Your task to perform on an android device: turn off data saver in the chrome app Image 0: 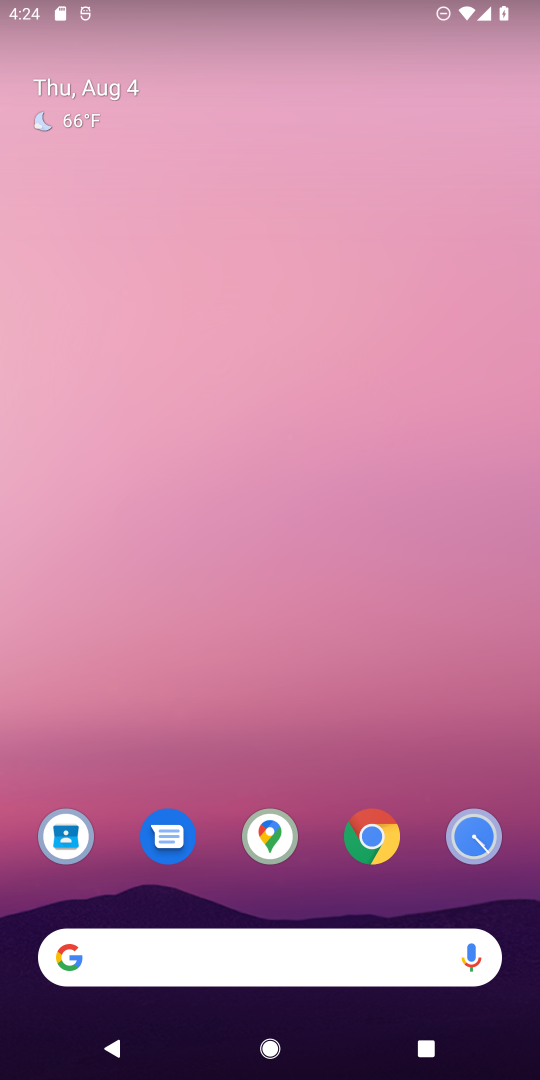
Step 0: click (376, 822)
Your task to perform on an android device: turn off data saver in the chrome app Image 1: 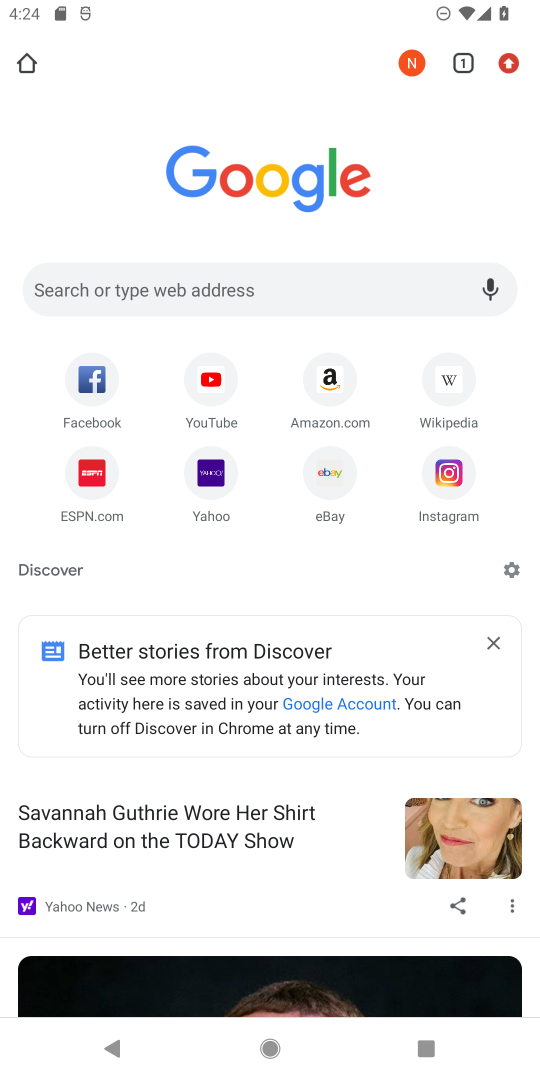
Step 1: click (499, 66)
Your task to perform on an android device: turn off data saver in the chrome app Image 2: 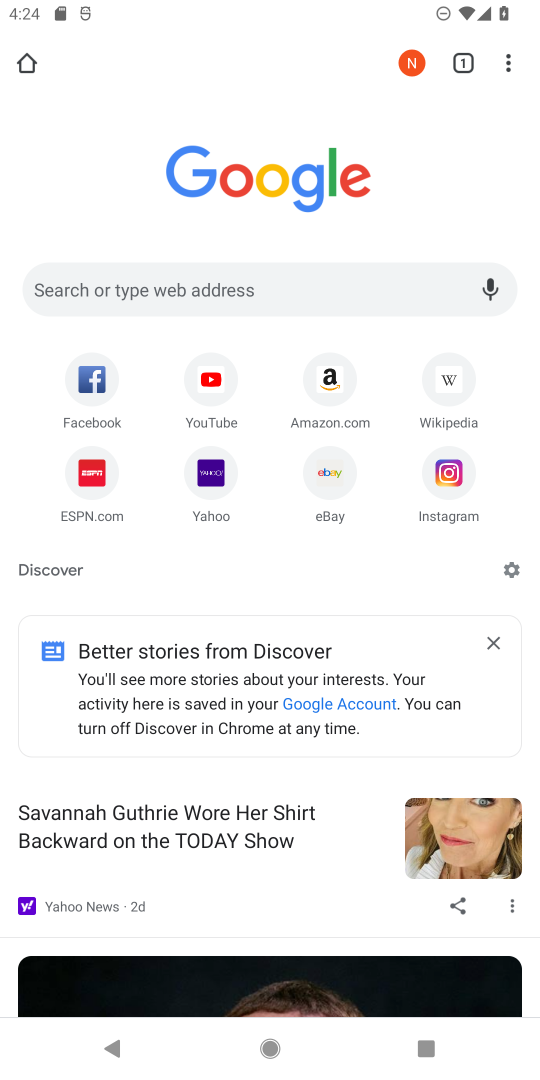
Step 2: click (515, 67)
Your task to perform on an android device: turn off data saver in the chrome app Image 3: 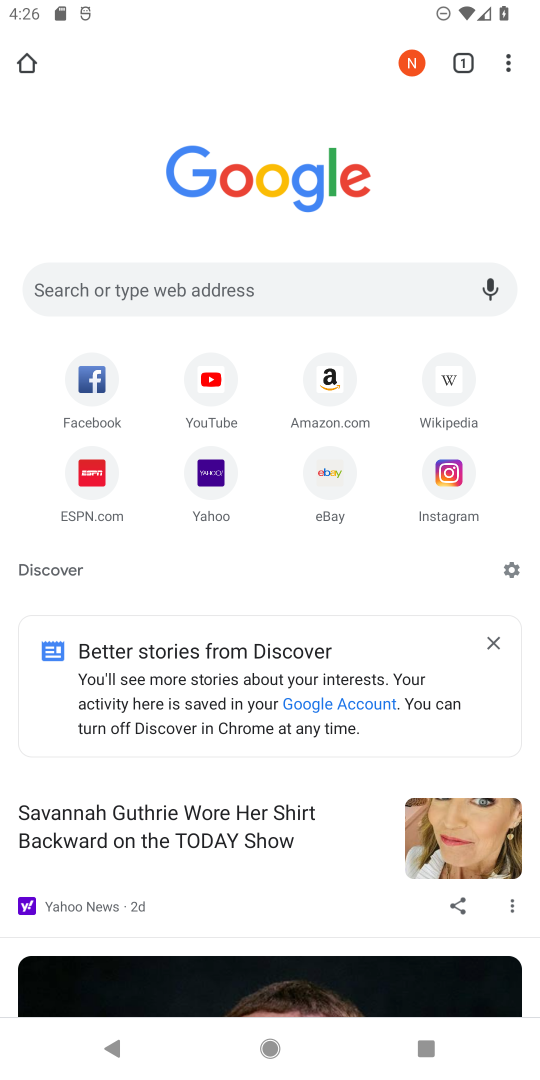
Step 3: click (501, 61)
Your task to perform on an android device: turn off data saver in the chrome app Image 4: 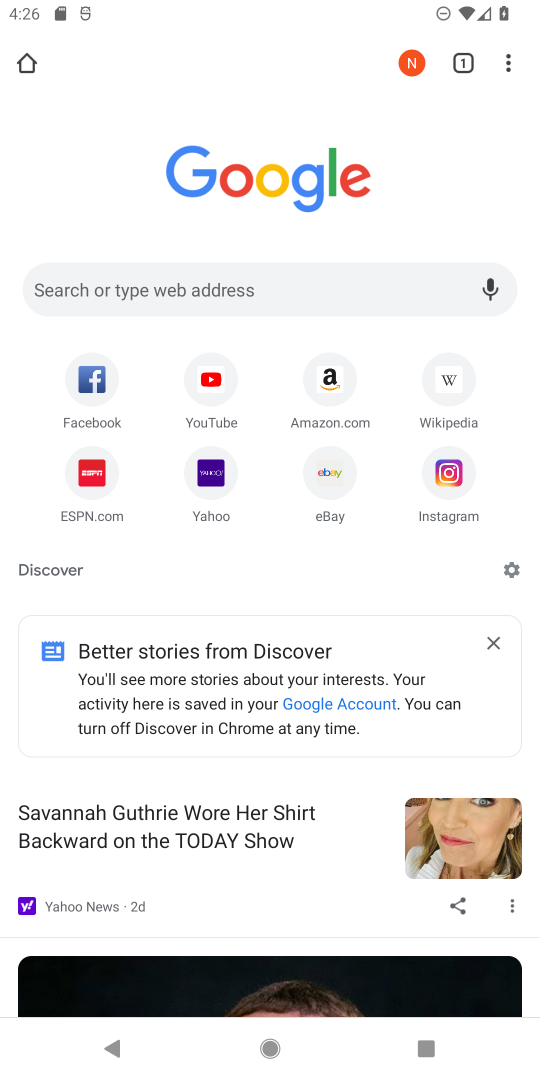
Step 4: click (501, 61)
Your task to perform on an android device: turn off data saver in the chrome app Image 5: 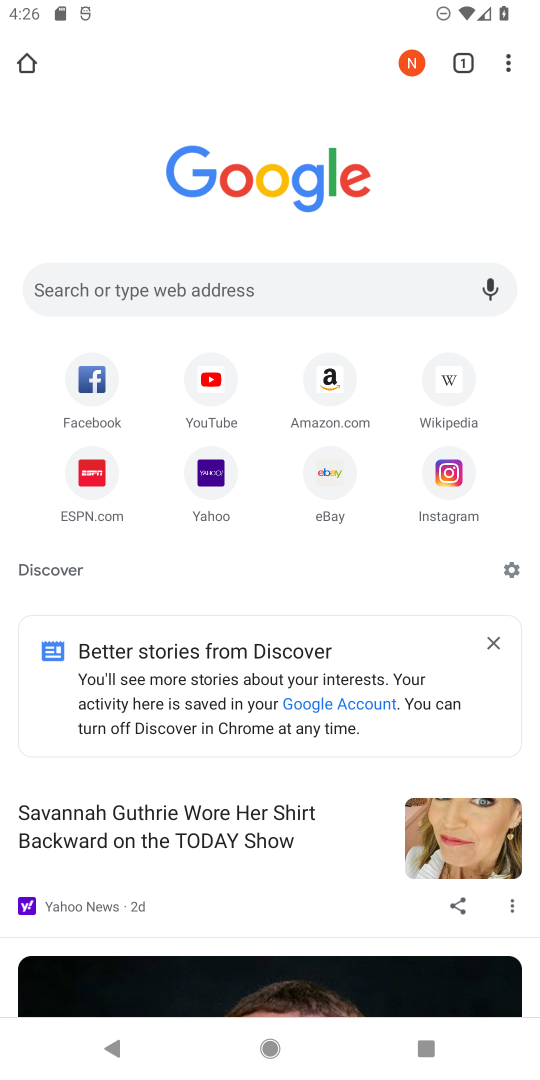
Step 5: click (507, 48)
Your task to perform on an android device: turn off data saver in the chrome app Image 6: 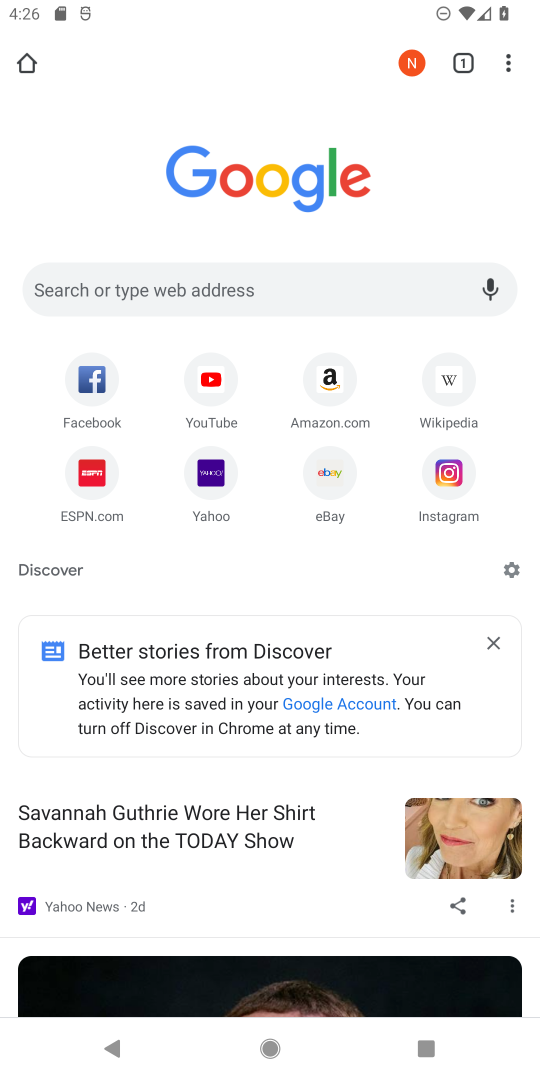
Step 6: click (507, 54)
Your task to perform on an android device: turn off data saver in the chrome app Image 7: 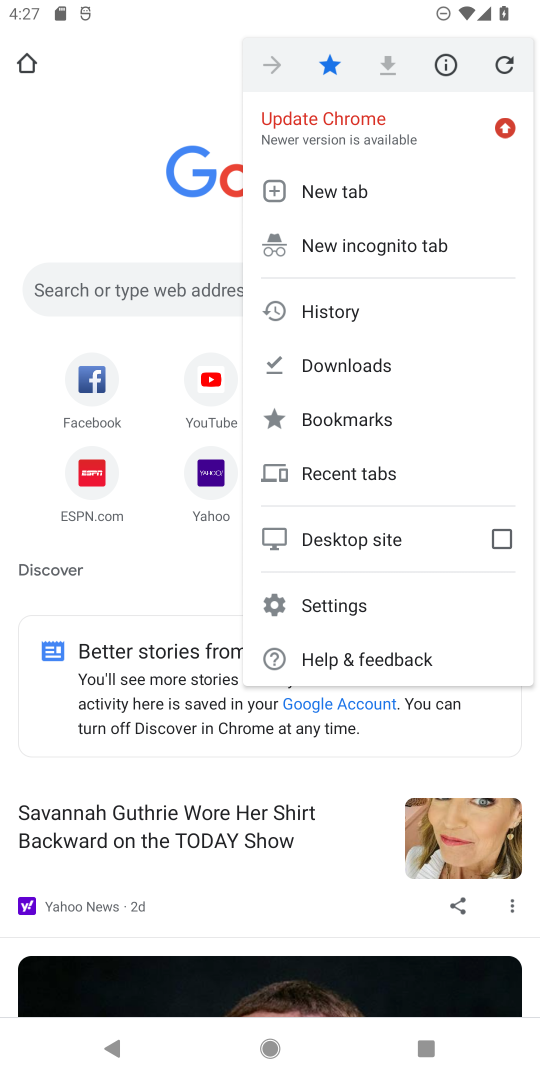
Step 7: click (418, 606)
Your task to perform on an android device: turn off data saver in the chrome app Image 8: 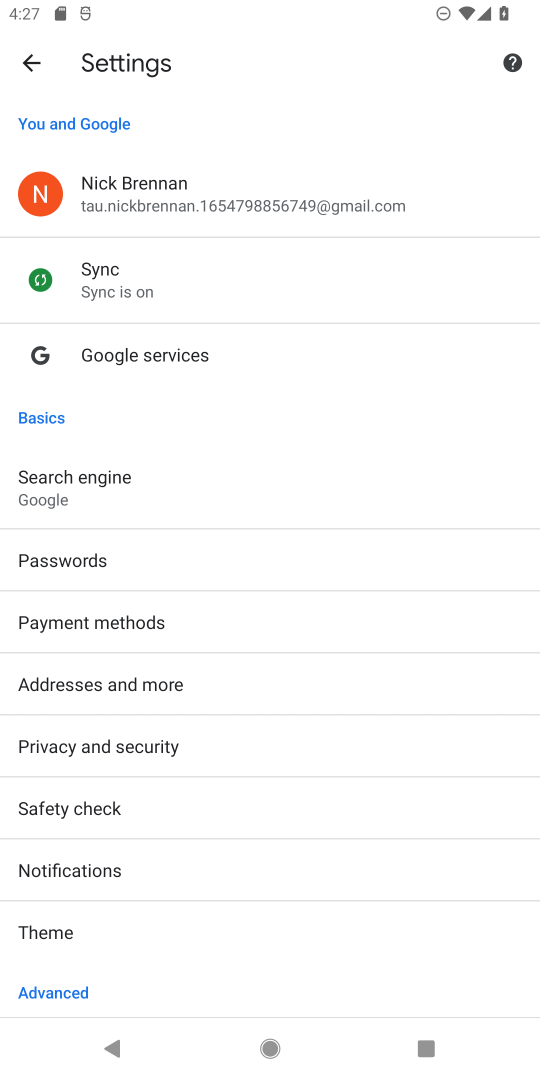
Step 8: drag from (261, 890) to (419, 0)
Your task to perform on an android device: turn off data saver in the chrome app Image 9: 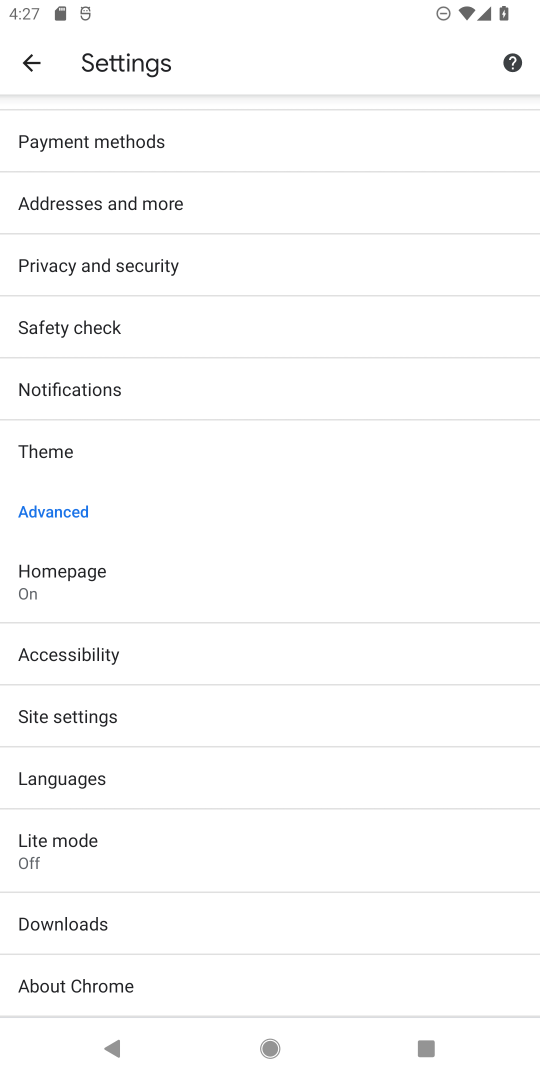
Step 9: click (140, 851)
Your task to perform on an android device: turn off data saver in the chrome app Image 10: 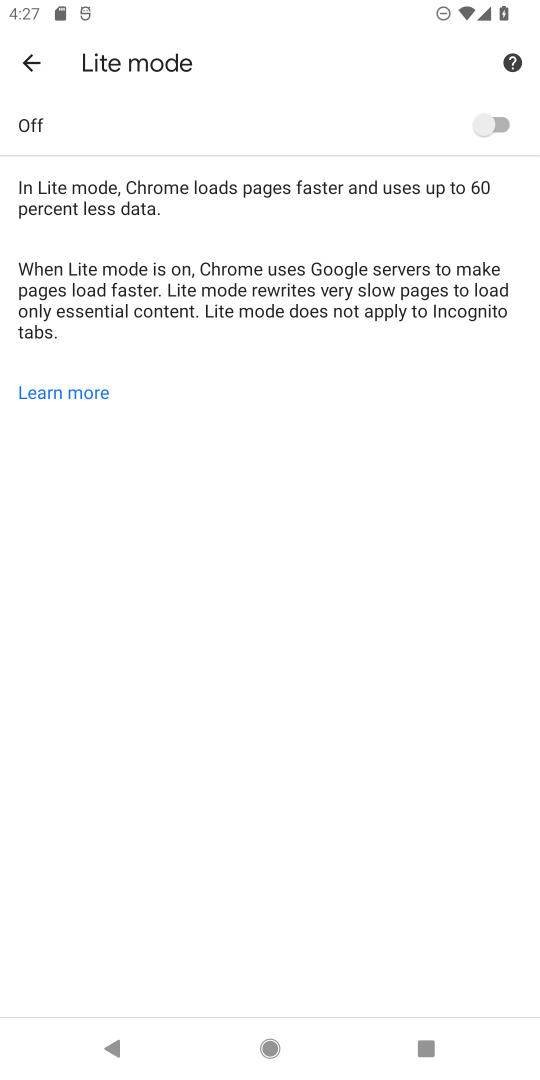
Step 10: task complete